Your task to perform on an android device: Search for vegetarian restaurants on Maps Image 0: 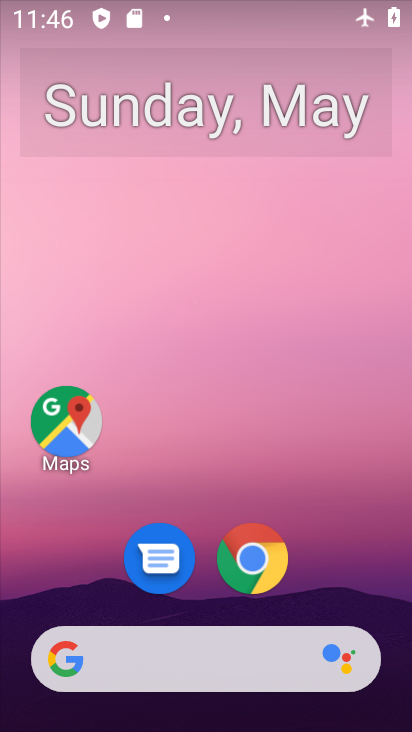
Step 0: drag from (368, 589) to (380, 39)
Your task to perform on an android device: Search for vegetarian restaurants on Maps Image 1: 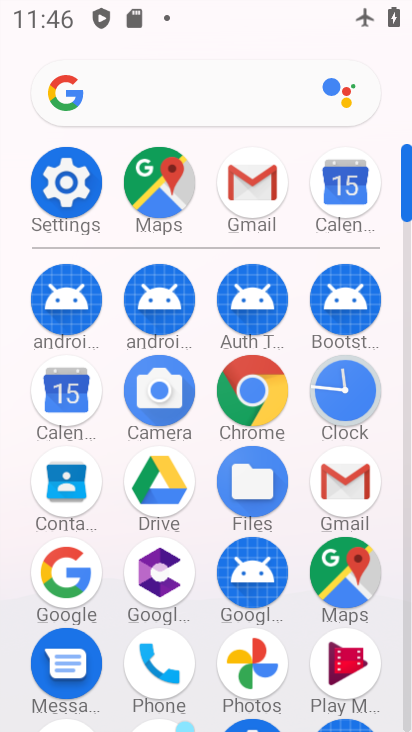
Step 1: click (158, 183)
Your task to perform on an android device: Search for vegetarian restaurants on Maps Image 2: 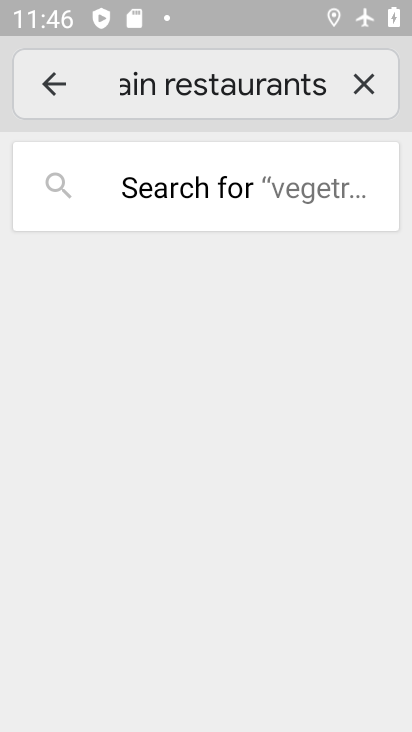
Step 2: task complete